Your task to perform on an android device: turn on wifi Image 0: 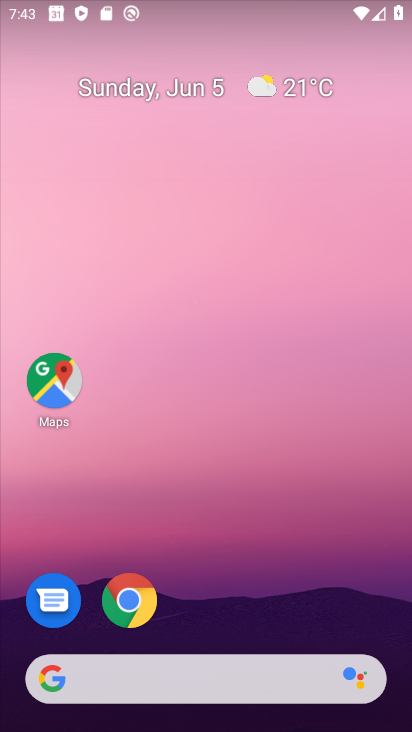
Step 0: drag from (175, 15) to (332, 715)
Your task to perform on an android device: turn on wifi Image 1: 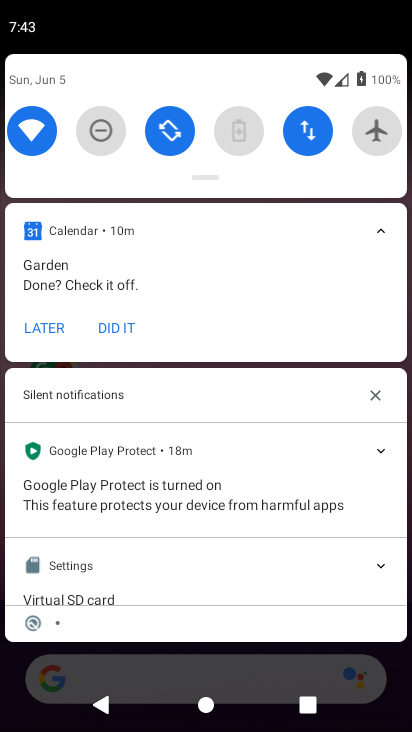
Step 1: task complete